Your task to perform on an android device: add a label to a message in the gmail app Image 0: 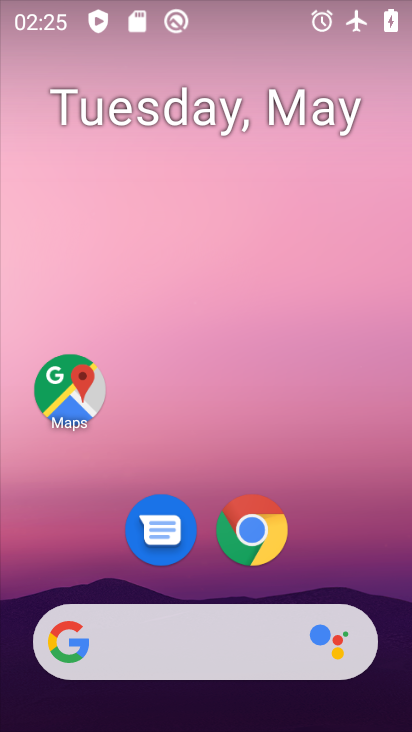
Step 0: drag from (195, 578) to (241, 182)
Your task to perform on an android device: add a label to a message in the gmail app Image 1: 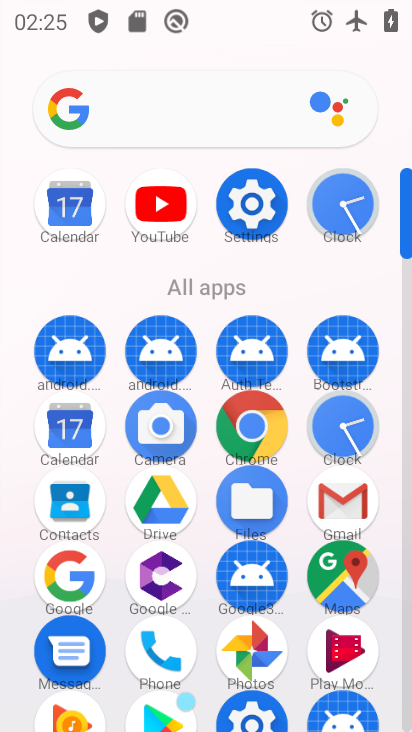
Step 1: click (326, 513)
Your task to perform on an android device: add a label to a message in the gmail app Image 2: 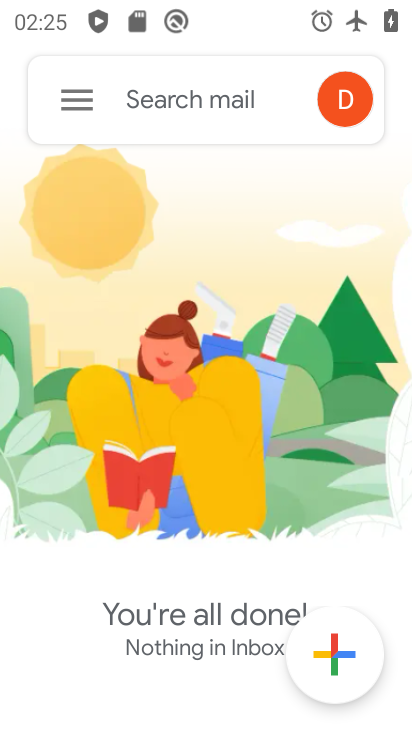
Step 2: click (81, 102)
Your task to perform on an android device: add a label to a message in the gmail app Image 3: 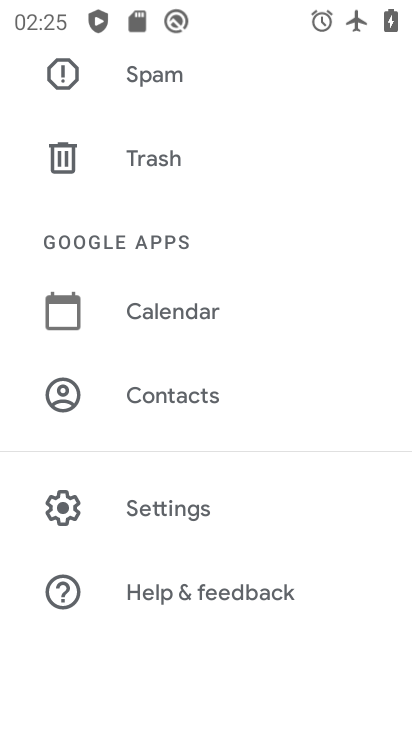
Step 3: drag from (255, 171) to (258, 581)
Your task to perform on an android device: add a label to a message in the gmail app Image 4: 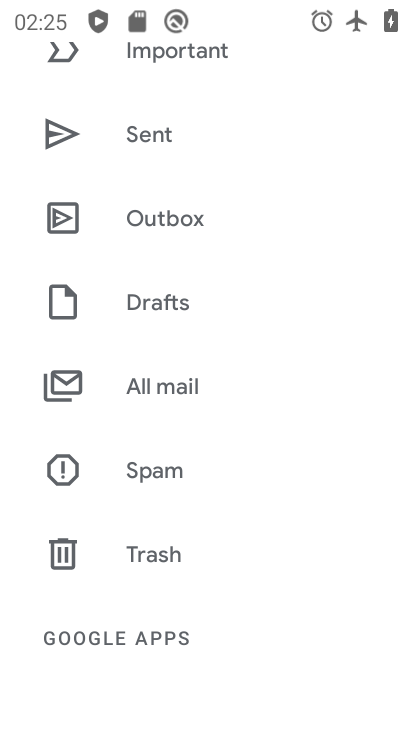
Step 4: click (170, 388)
Your task to perform on an android device: add a label to a message in the gmail app Image 5: 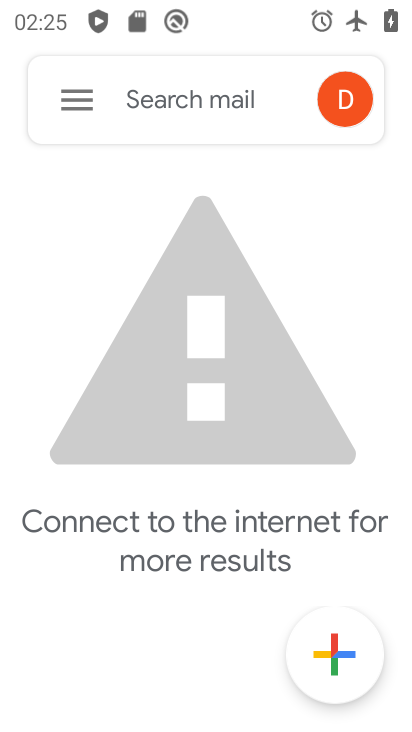
Step 5: task complete